Your task to perform on an android device: Show the shopping cart on target. Add razer blade to the cart on target Image 0: 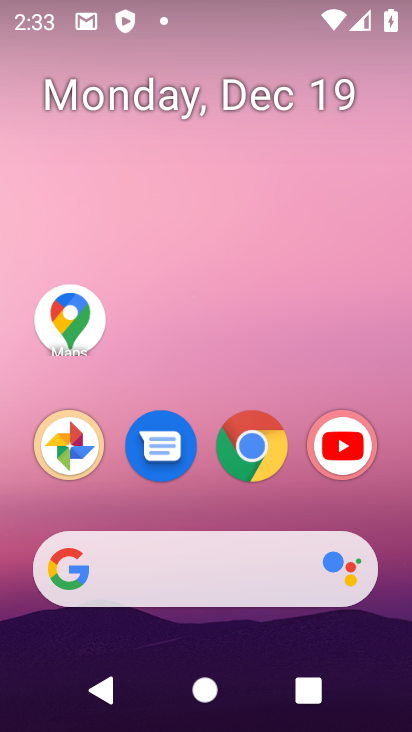
Step 0: click (243, 464)
Your task to perform on an android device: Show the shopping cart on target. Add razer blade to the cart on target Image 1: 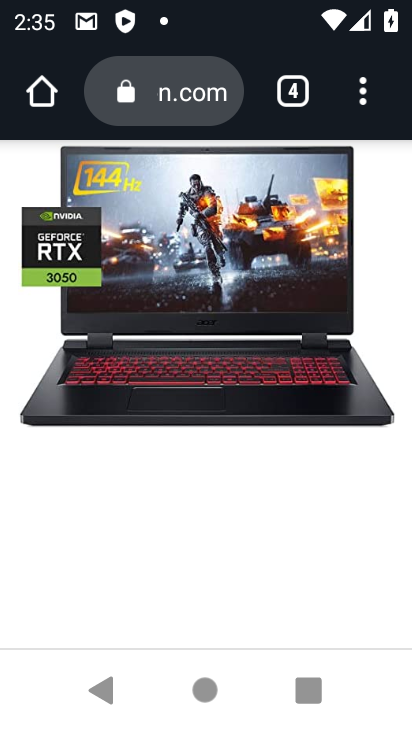
Step 1: task complete